Your task to perform on an android device: turn off smart reply in the gmail app Image 0: 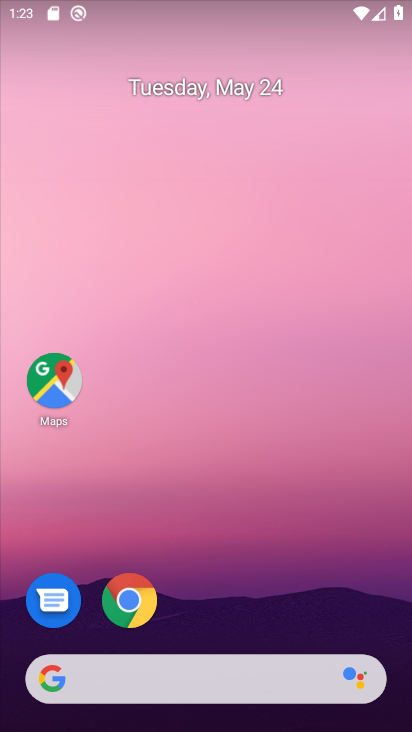
Step 0: drag from (221, 578) to (235, 200)
Your task to perform on an android device: turn off smart reply in the gmail app Image 1: 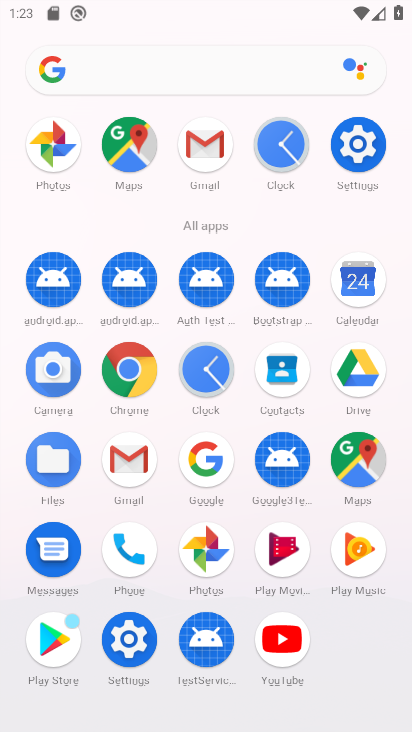
Step 1: drag from (225, 551) to (265, 297)
Your task to perform on an android device: turn off smart reply in the gmail app Image 2: 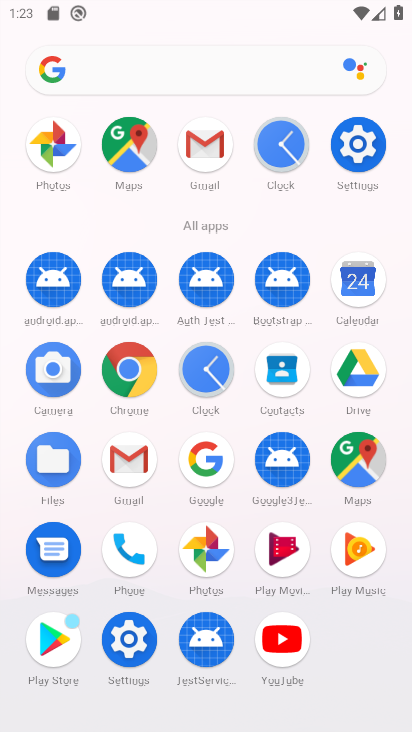
Step 2: click (194, 149)
Your task to perform on an android device: turn off smart reply in the gmail app Image 3: 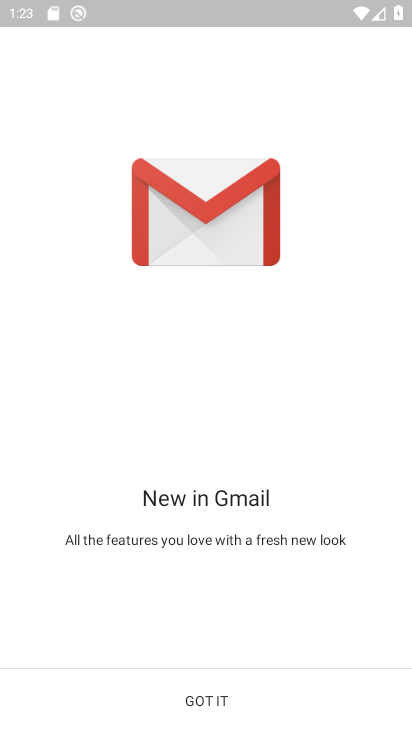
Step 3: click (192, 685)
Your task to perform on an android device: turn off smart reply in the gmail app Image 4: 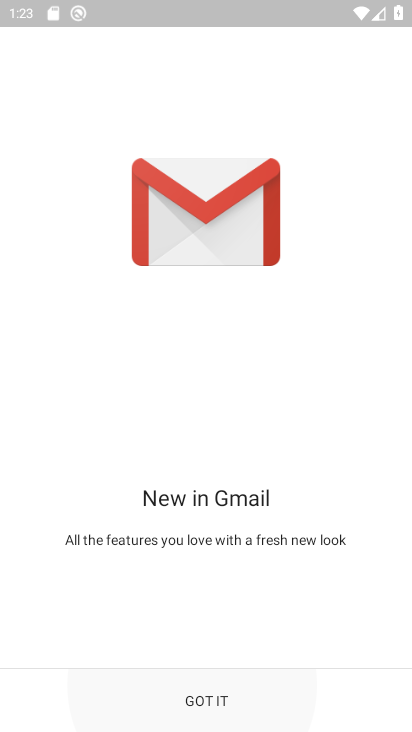
Step 4: click (192, 685)
Your task to perform on an android device: turn off smart reply in the gmail app Image 5: 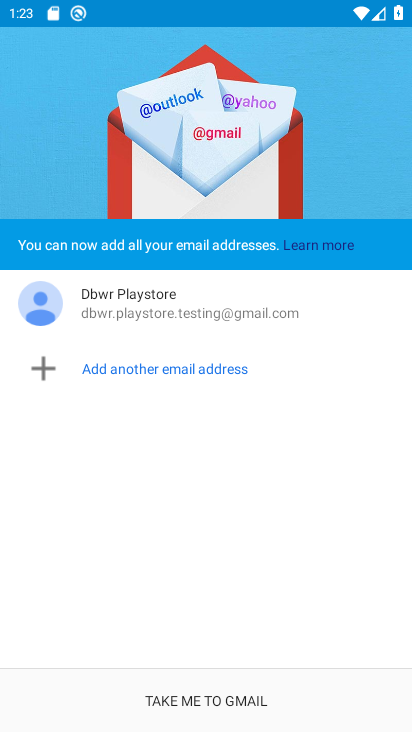
Step 5: click (185, 704)
Your task to perform on an android device: turn off smart reply in the gmail app Image 6: 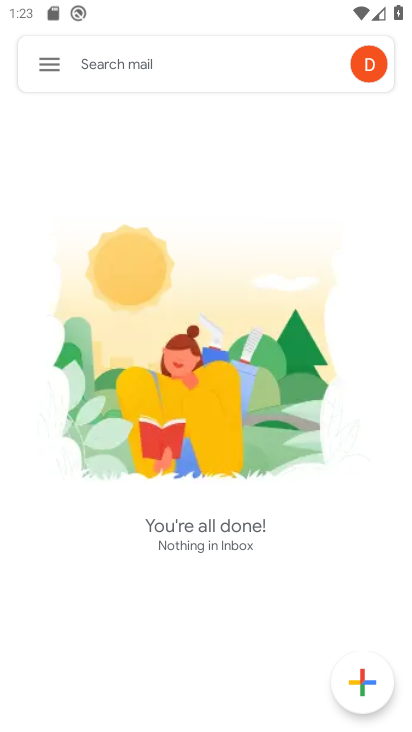
Step 6: click (64, 53)
Your task to perform on an android device: turn off smart reply in the gmail app Image 7: 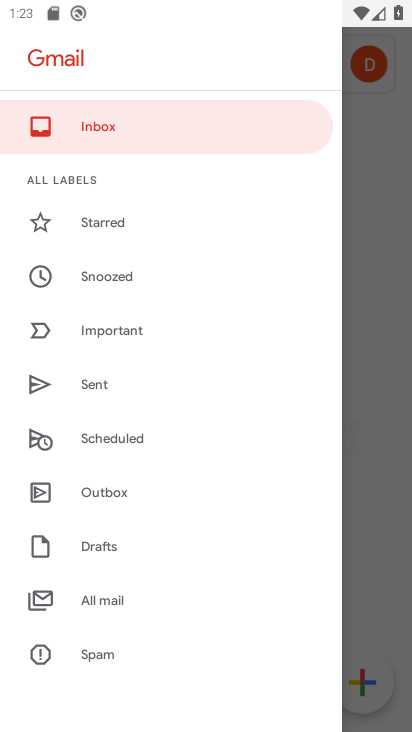
Step 7: drag from (117, 431) to (93, 16)
Your task to perform on an android device: turn off smart reply in the gmail app Image 8: 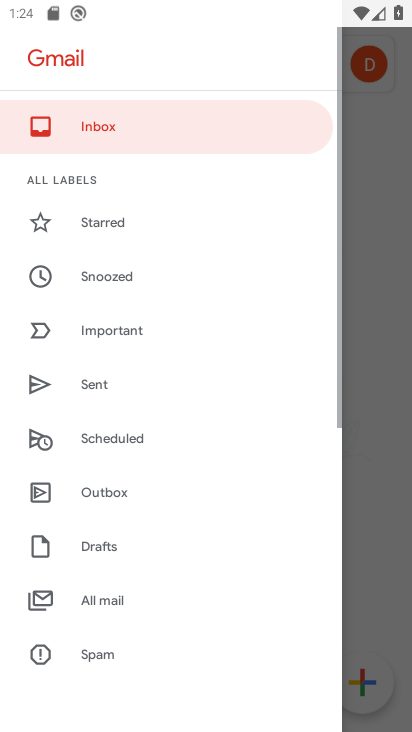
Step 8: click (129, 356)
Your task to perform on an android device: turn off smart reply in the gmail app Image 9: 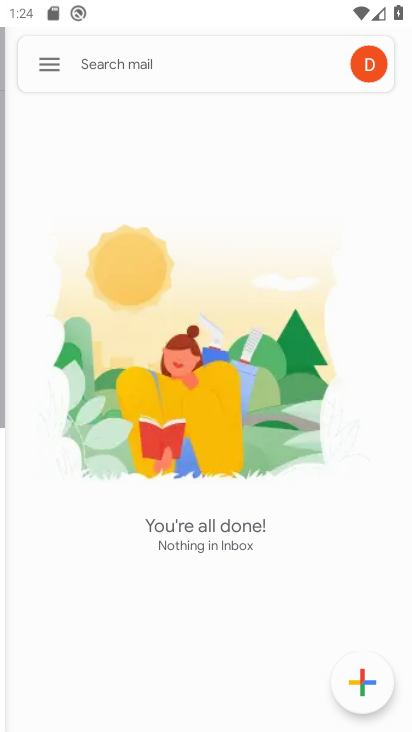
Step 9: drag from (211, 578) to (213, 328)
Your task to perform on an android device: turn off smart reply in the gmail app Image 10: 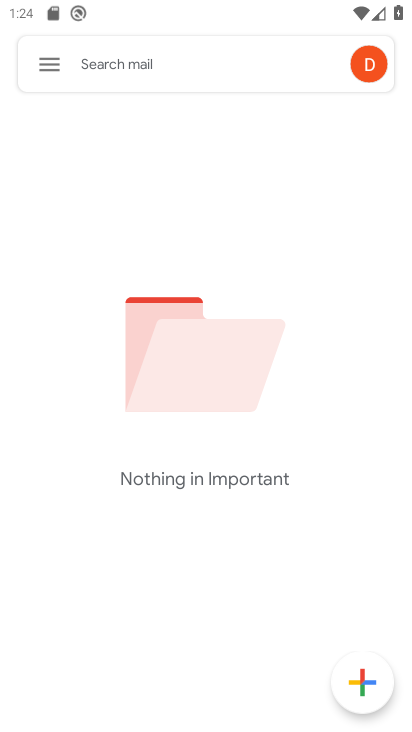
Step 10: click (35, 74)
Your task to perform on an android device: turn off smart reply in the gmail app Image 11: 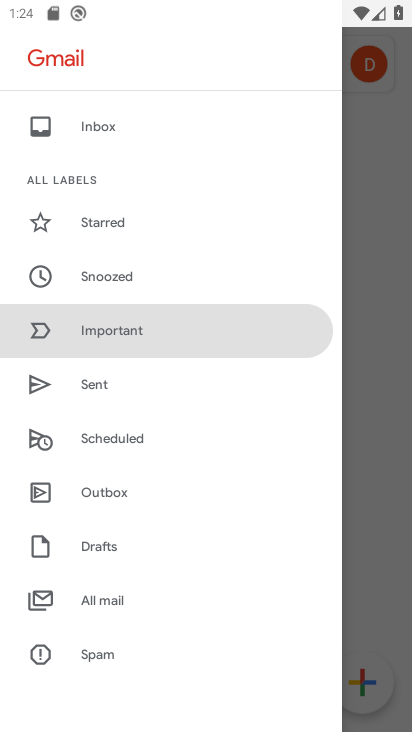
Step 11: task complete